Your task to perform on an android device: What's the weather going to be tomorrow? Image 0: 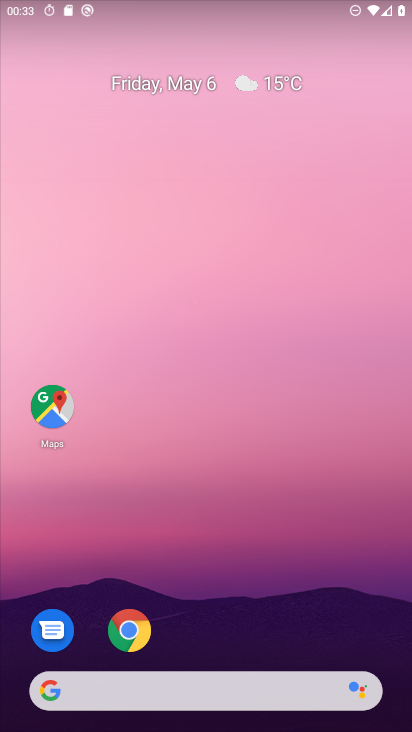
Step 0: click (280, 78)
Your task to perform on an android device: What's the weather going to be tomorrow? Image 1: 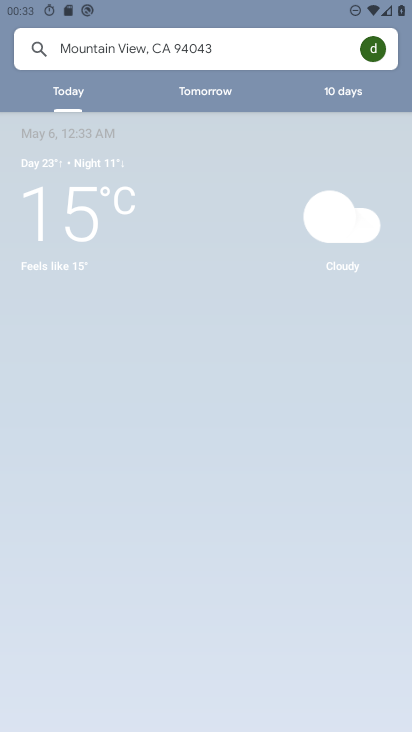
Step 1: click (180, 95)
Your task to perform on an android device: What's the weather going to be tomorrow? Image 2: 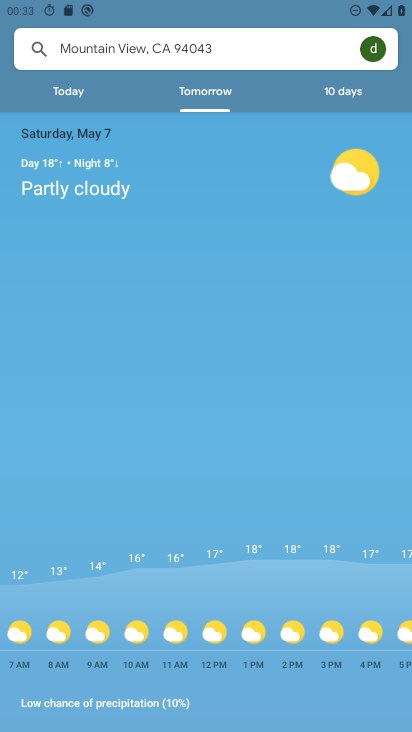
Step 2: task complete